Your task to perform on an android device: Open the calendar and show me this week's events? Image 0: 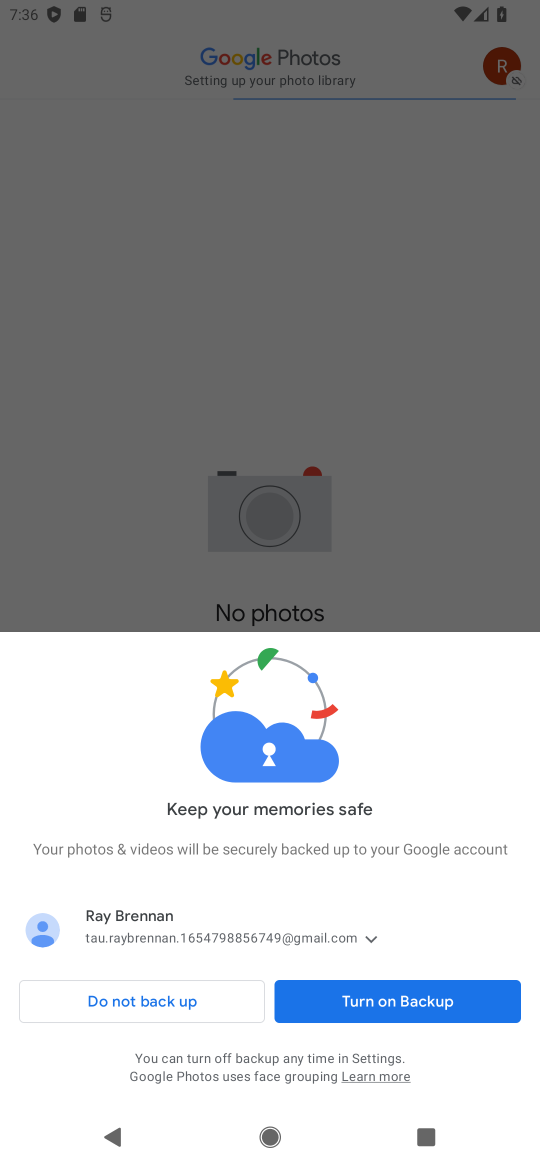
Step 0: press home button
Your task to perform on an android device: Open the calendar and show me this week's events? Image 1: 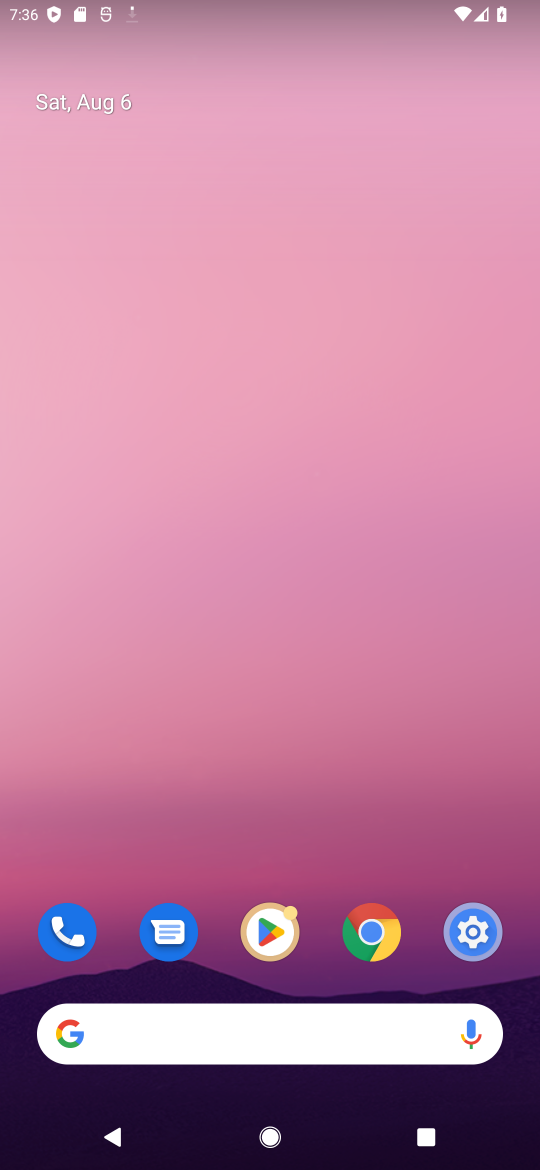
Step 1: drag from (328, 617) to (370, 272)
Your task to perform on an android device: Open the calendar and show me this week's events? Image 2: 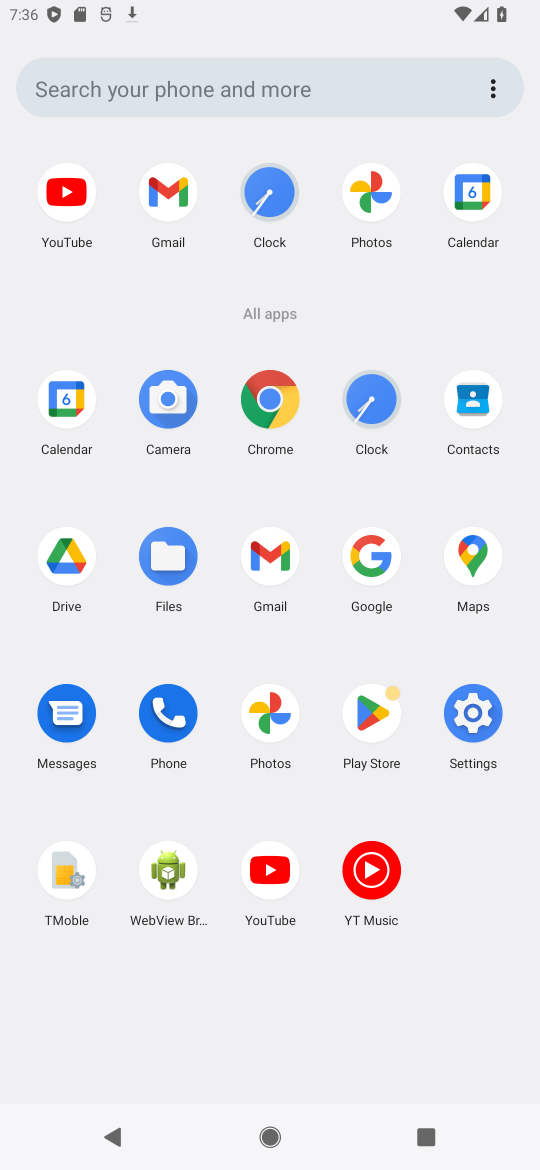
Step 2: click (65, 406)
Your task to perform on an android device: Open the calendar and show me this week's events? Image 3: 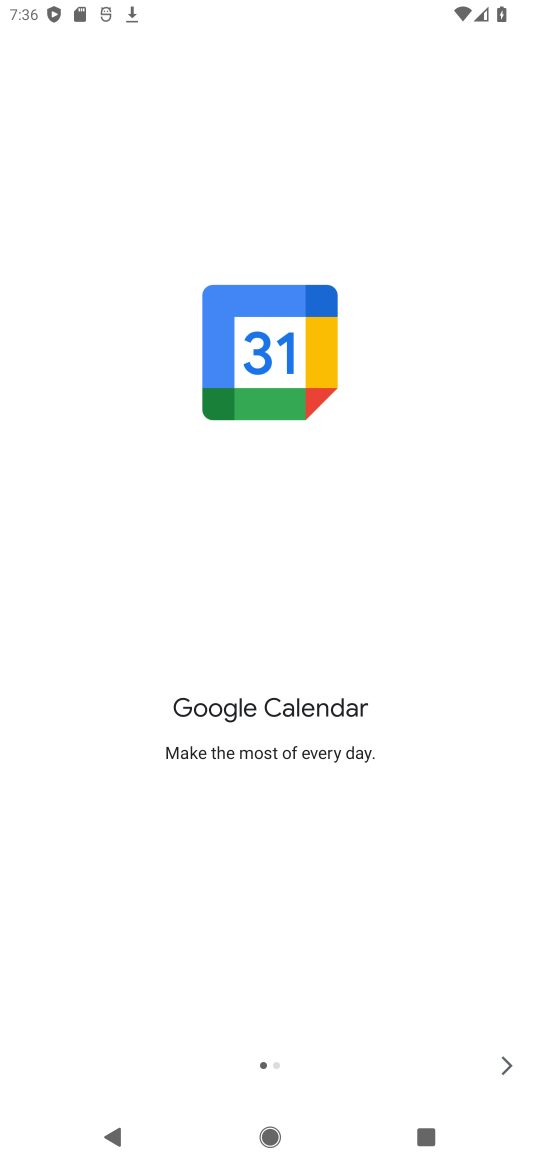
Step 3: click (507, 1063)
Your task to perform on an android device: Open the calendar and show me this week's events? Image 4: 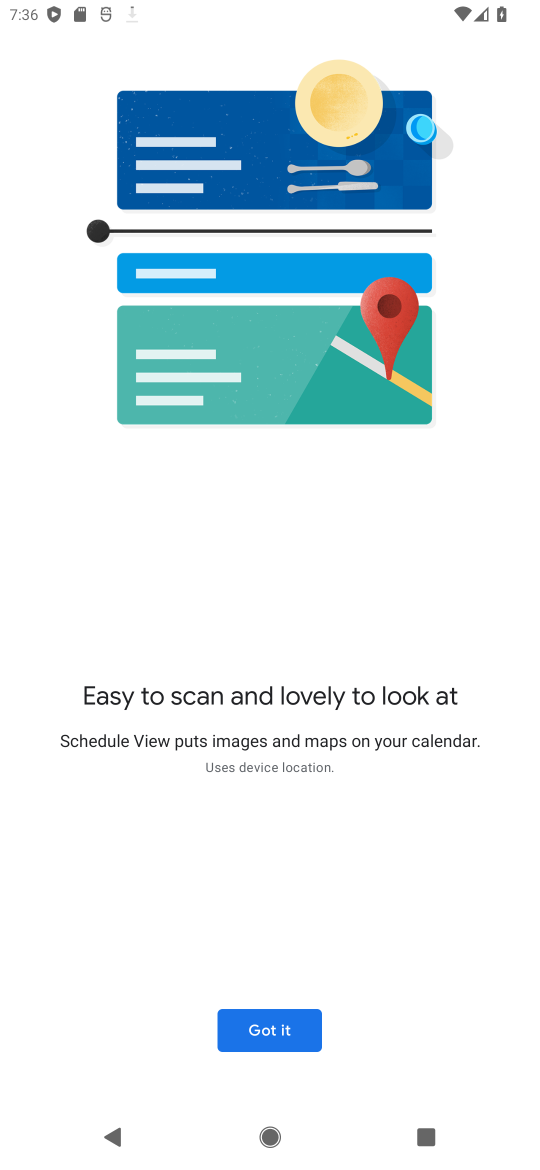
Step 4: click (510, 1065)
Your task to perform on an android device: Open the calendar and show me this week's events? Image 5: 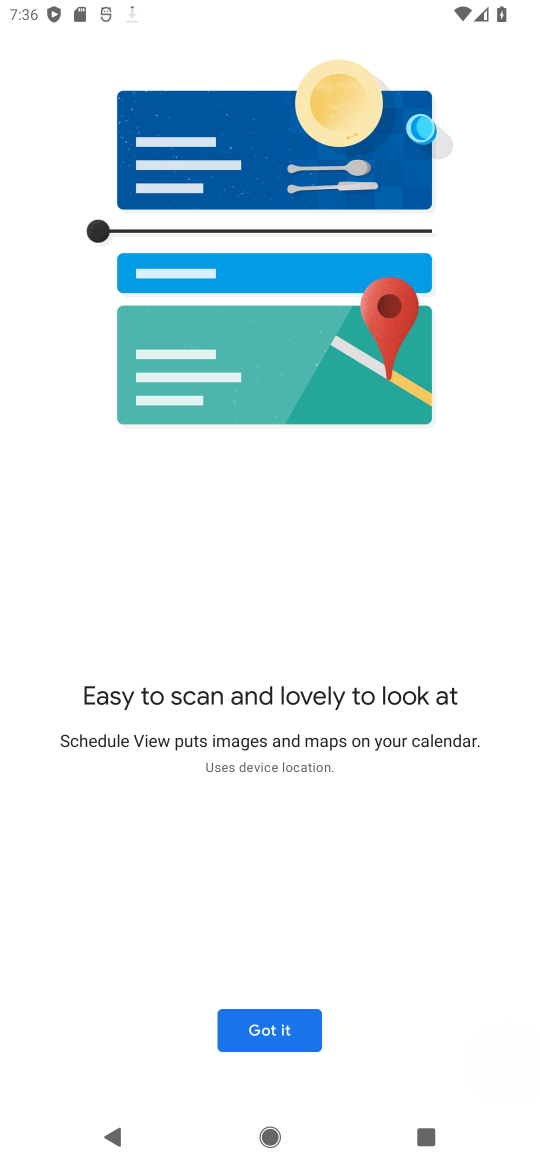
Step 5: click (282, 1020)
Your task to perform on an android device: Open the calendar and show me this week's events? Image 6: 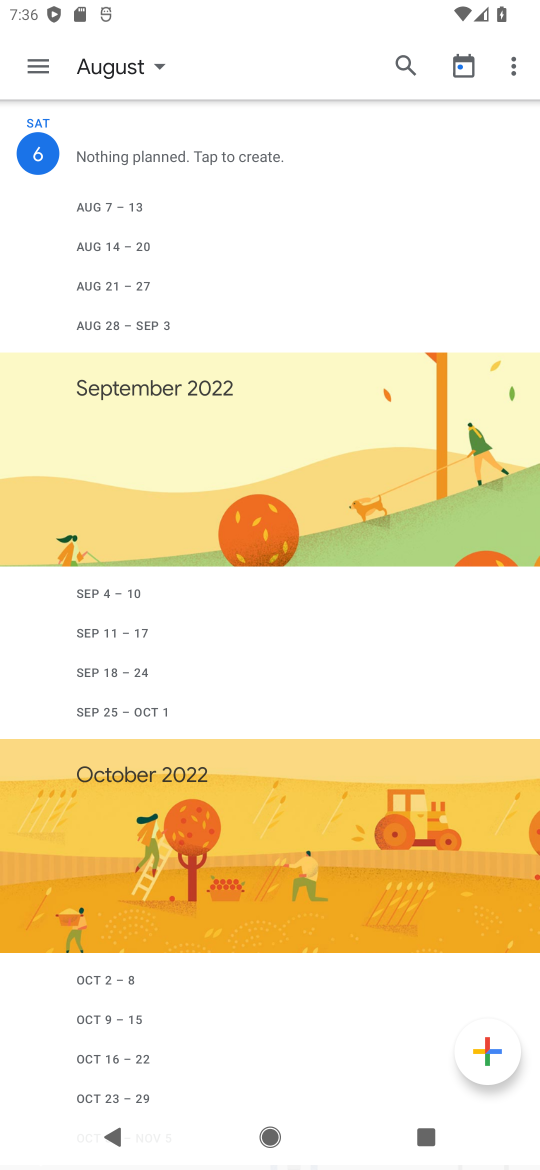
Step 6: click (35, 62)
Your task to perform on an android device: Open the calendar and show me this week's events? Image 7: 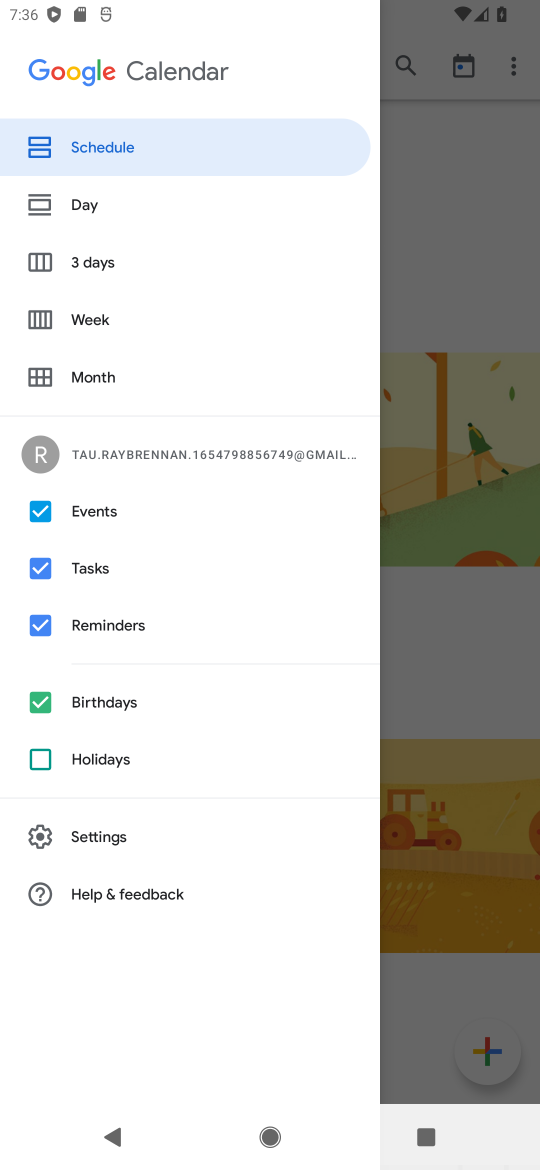
Step 7: click (124, 150)
Your task to perform on an android device: Open the calendar and show me this week's events? Image 8: 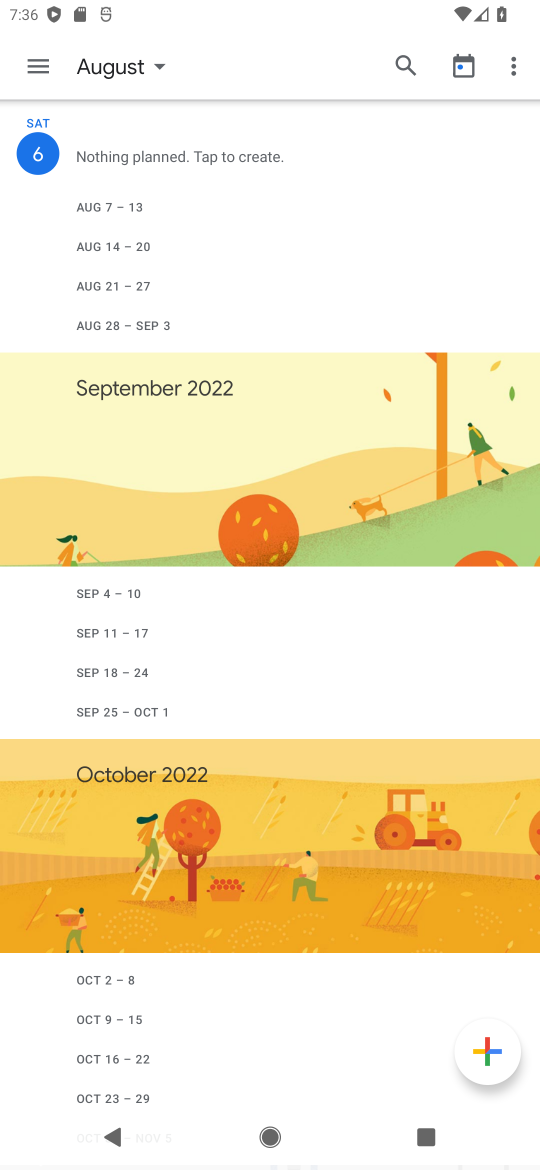
Step 8: task complete